Your task to perform on an android device: Open Google Maps and go to "Timeline" Image 0: 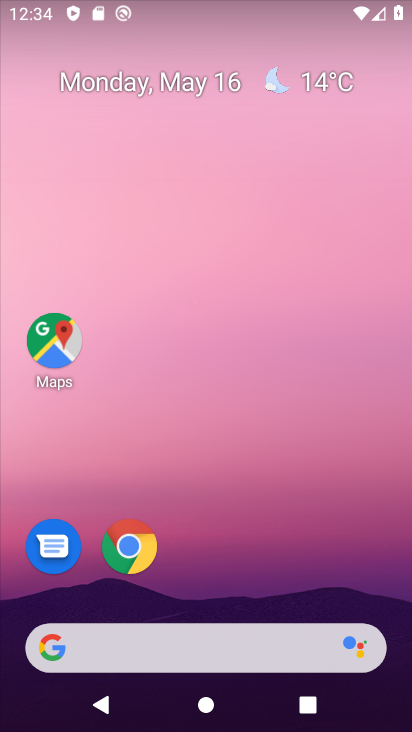
Step 0: press home button
Your task to perform on an android device: Open Google Maps and go to "Timeline" Image 1: 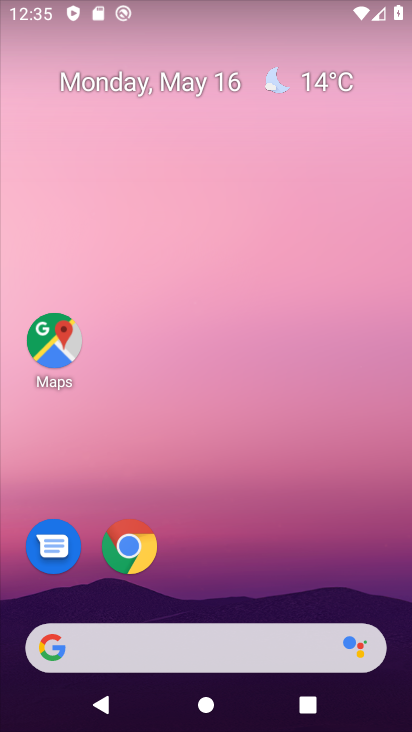
Step 1: drag from (274, 679) to (191, 192)
Your task to perform on an android device: Open Google Maps and go to "Timeline" Image 2: 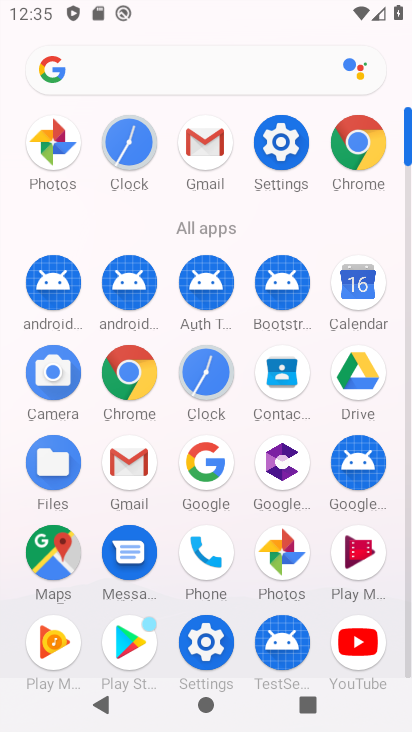
Step 2: click (61, 551)
Your task to perform on an android device: Open Google Maps and go to "Timeline" Image 3: 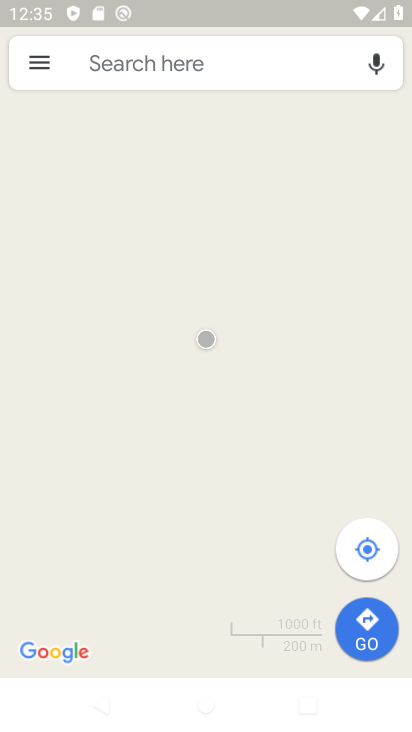
Step 3: click (40, 68)
Your task to perform on an android device: Open Google Maps and go to "Timeline" Image 4: 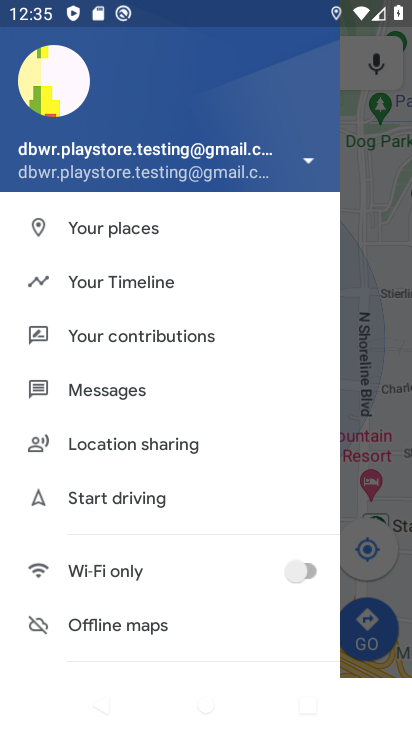
Step 4: click (162, 291)
Your task to perform on an android device: Open Google Maps and go to "Timeline" Image 5: 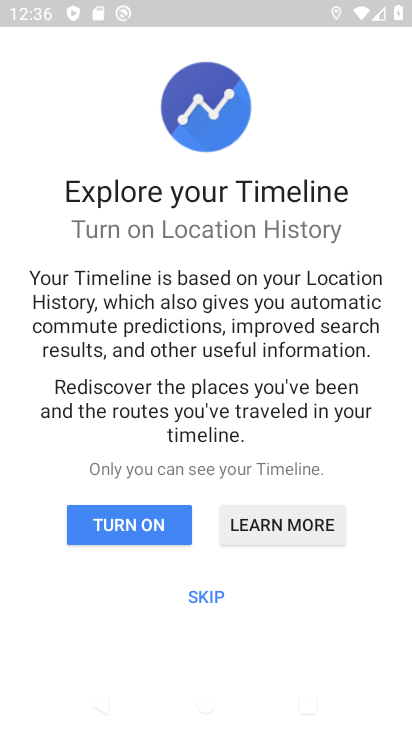
Step 5: click (217, 587)
Your task to perform on an android device: Open Google Maps and go to "Timeline" Image 6: 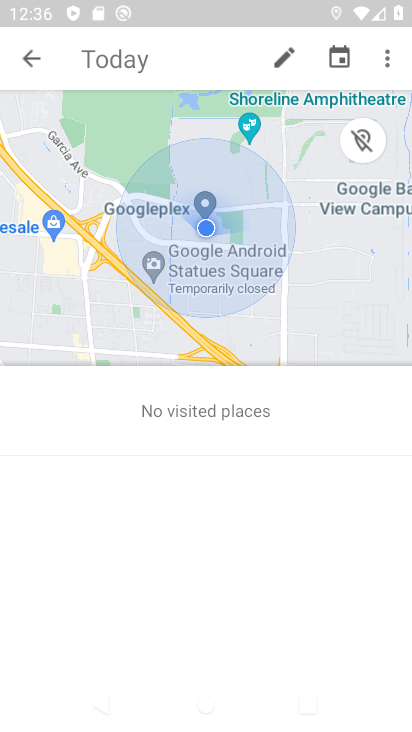
Step 6: task complete